Your task to perform on an android device: find snoozed emails in the gmail app Image 0: 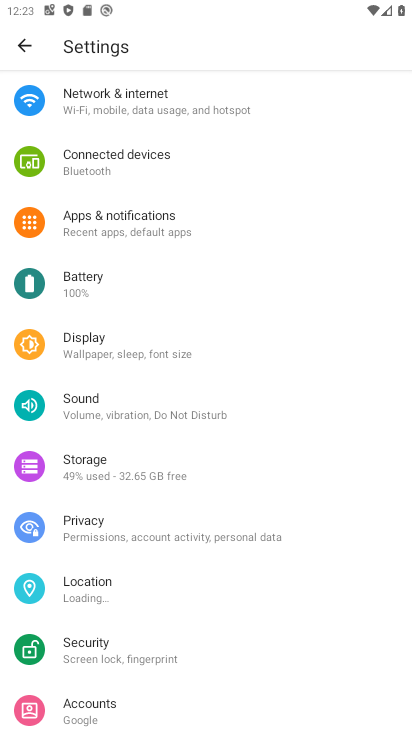
Step 0: press home button
Your task to perform on an android device: find snoozed emails in the gmail app Image 1: 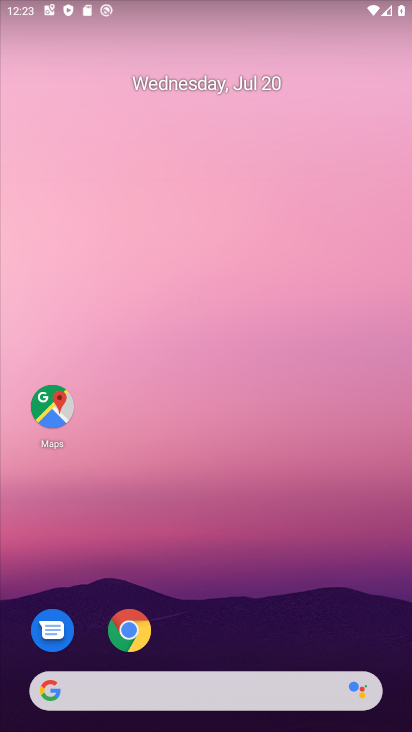
Step 1: drag from (201, 522) to (119, 126)
Your task to perform on an android device: find snoozed emails in the gmail app Image 2: 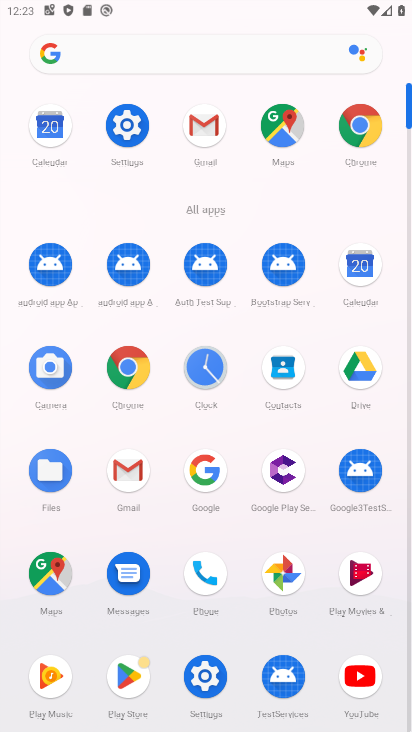
Step 2: click (208, 125)
Your task to perform on an android device: find snoozed emails in the gmail app Image 3: 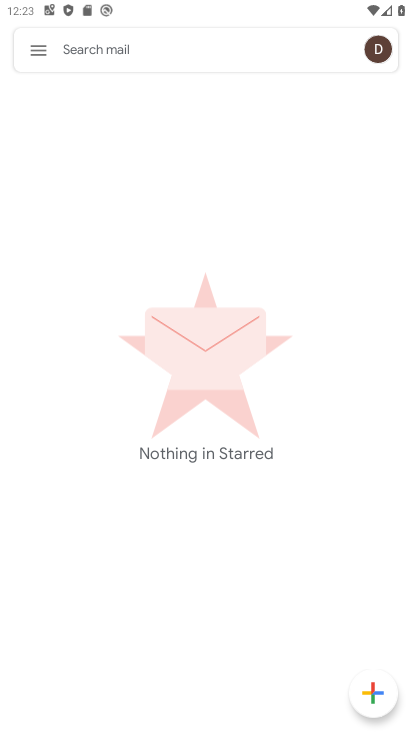
Step 3: click (30, 43)
Your task to perform on an android device: find snoozed emails in the gmail app Image 4: 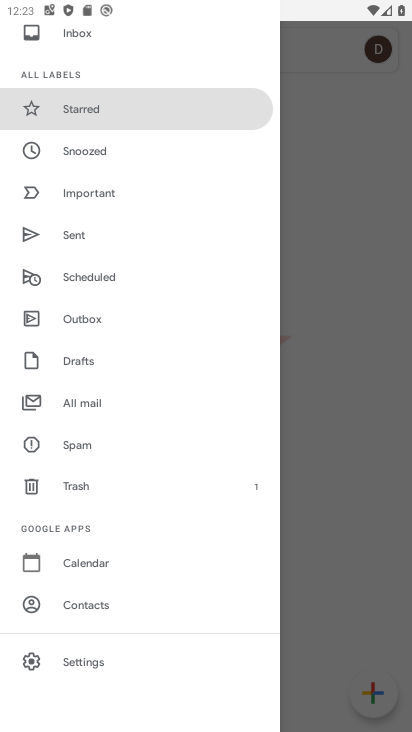
Step 4: click (93, 158)
Your task to perform on an android device: find snoozed emails in the gmail app Image 5: 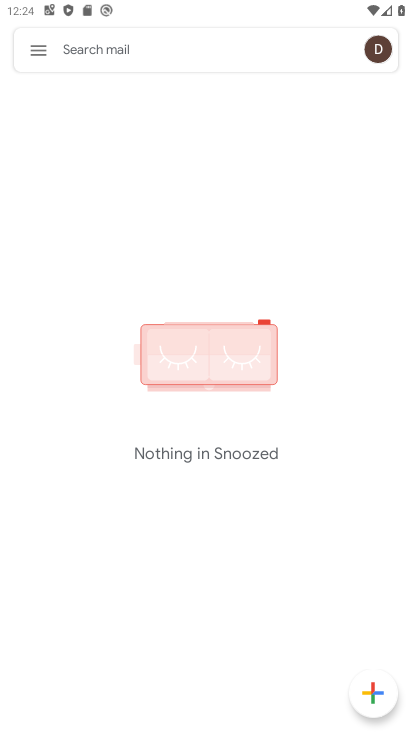
Step 5: task complete